Your task to perform on an android device: See recent photos Image 0: 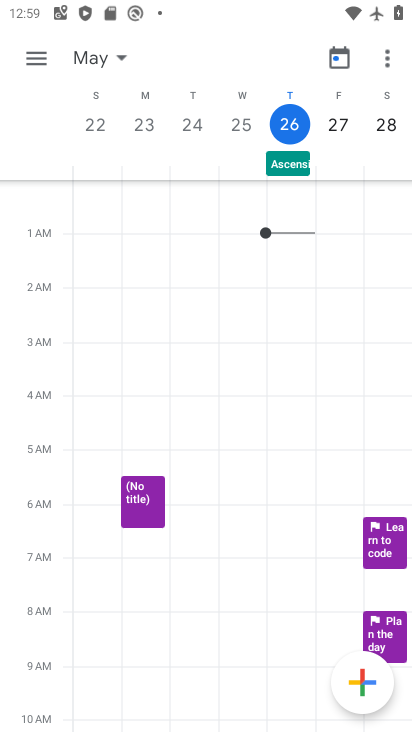
Step 0: press home button
Your task to perform on an android device: See recent photos Image 1: 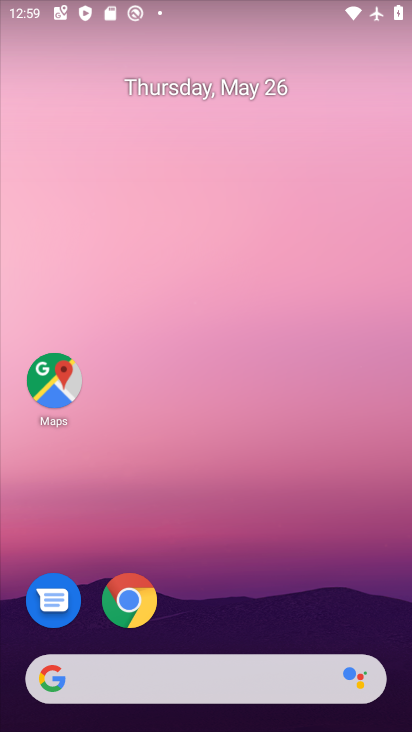
Step 1: drag from (278, 538) to (258, 115)
Your task to perform on an android device: See recent photos Image 2: 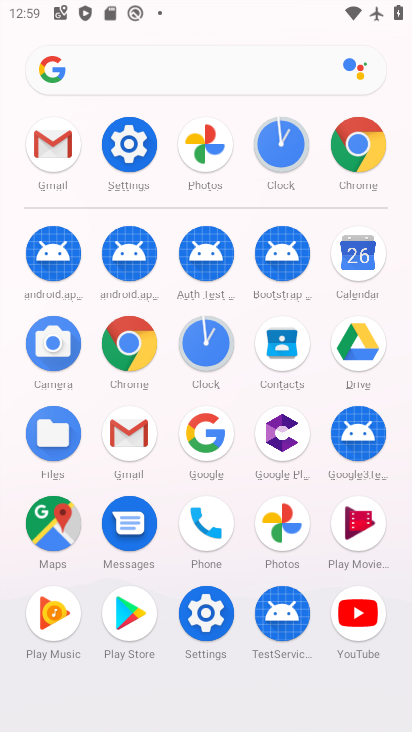
Step 2: click (215, 148)
Your task to perform on an android device: See recent photos Image 3: 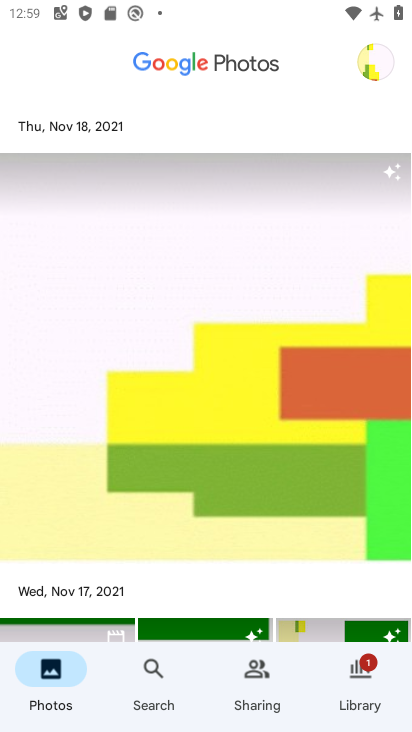
Step 3: task complete